Your task to perform on an android device: refresh tabs in the chrome app Image 0: 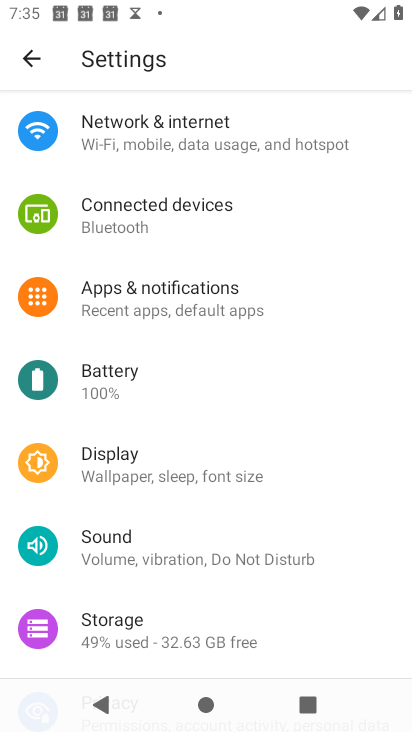
Step 0: press home button
Your task to perform on an android device: refresh tabs in the chrome app Image 1: 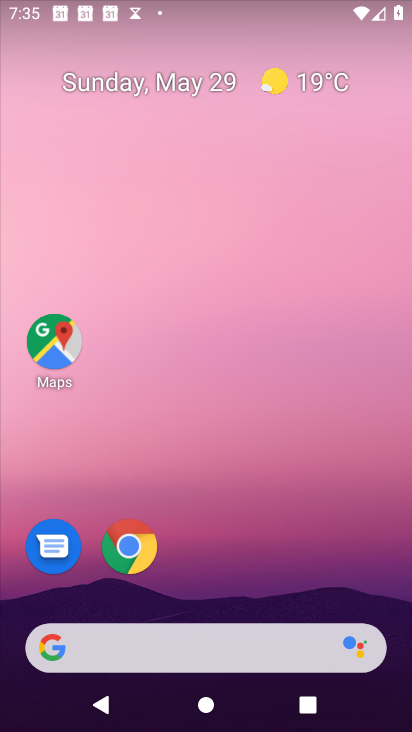
Step 1: click (134, 545)
Your task to perform on an android device: refresh tabs in the chrome app Image 2: 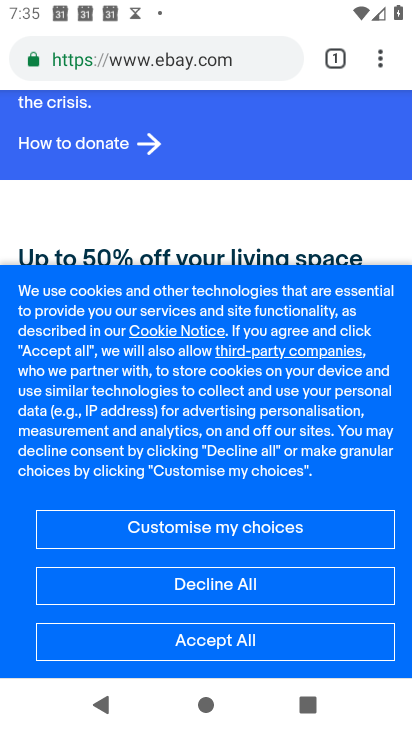
Step 2: click (377, 63)
Your task to perform on an android device: refresh tabs in the chrome app Image 3: 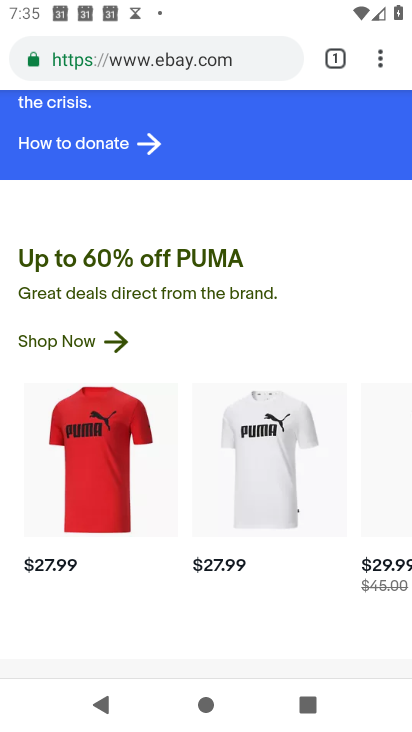
Step 3: click (389, 62)
Your task to perform on an android device: refresh tabs in the chrome app Image 4: 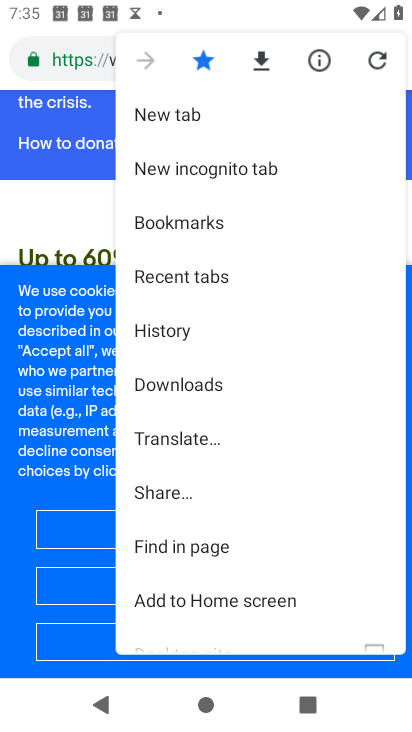
Step 4: click (376, 59)
Your task to perform on an android device: refresh tabs in the chrome app Image 5: 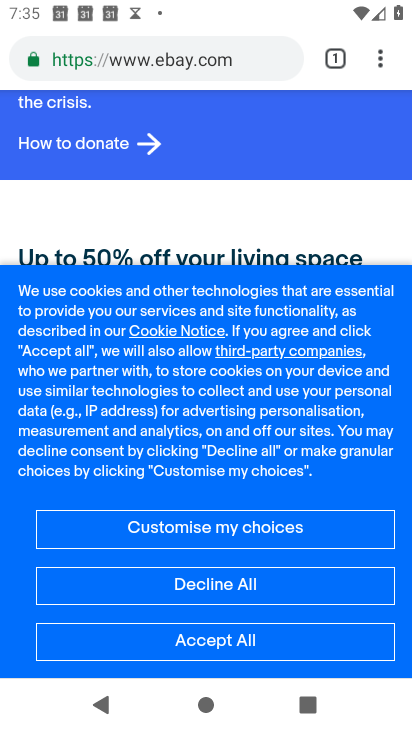
Step 5: task complete